Your task to perform on an android device: Open the gallery Image 0: 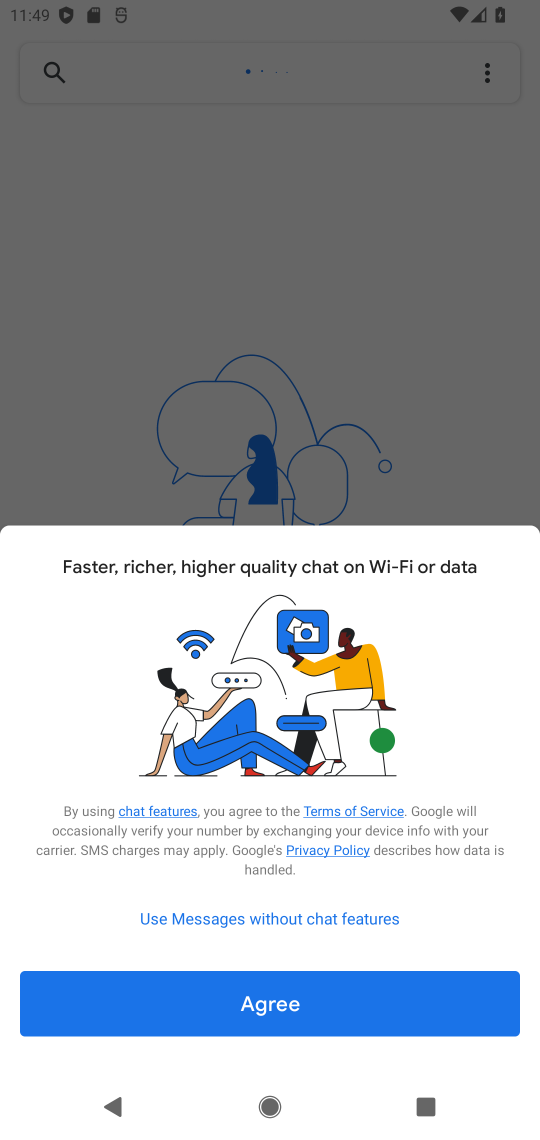
Step 0: press home button
Your task to perform on an android device: Open the gallery Image 1: 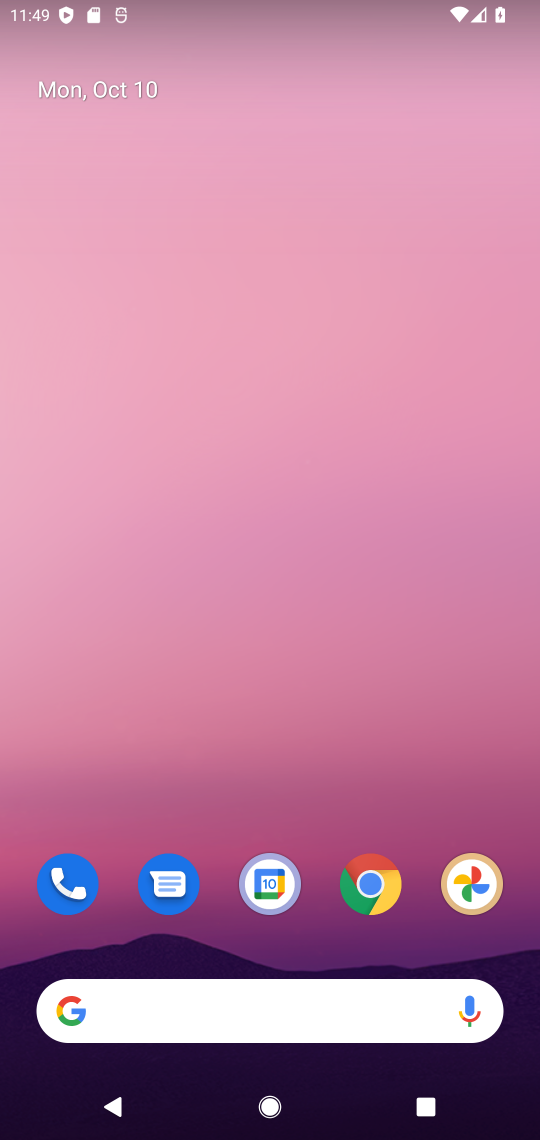
Step 1: click (377, 890)
Your task to perform on an android device: Open the gallery Image 2: 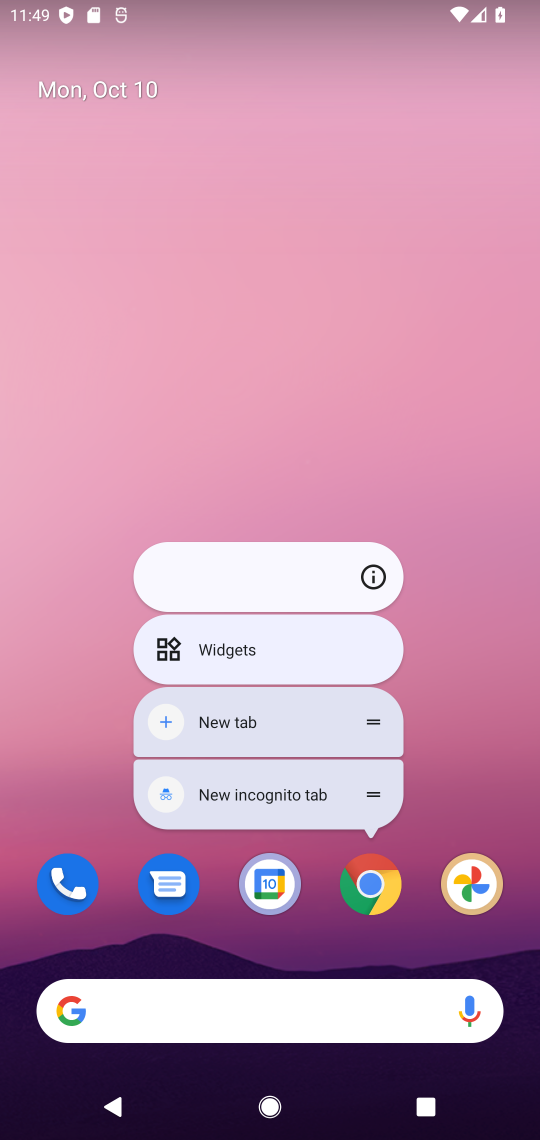
Step 2: click (443, 717)
Your task to perform on an android device: Open the gallery Image 3: 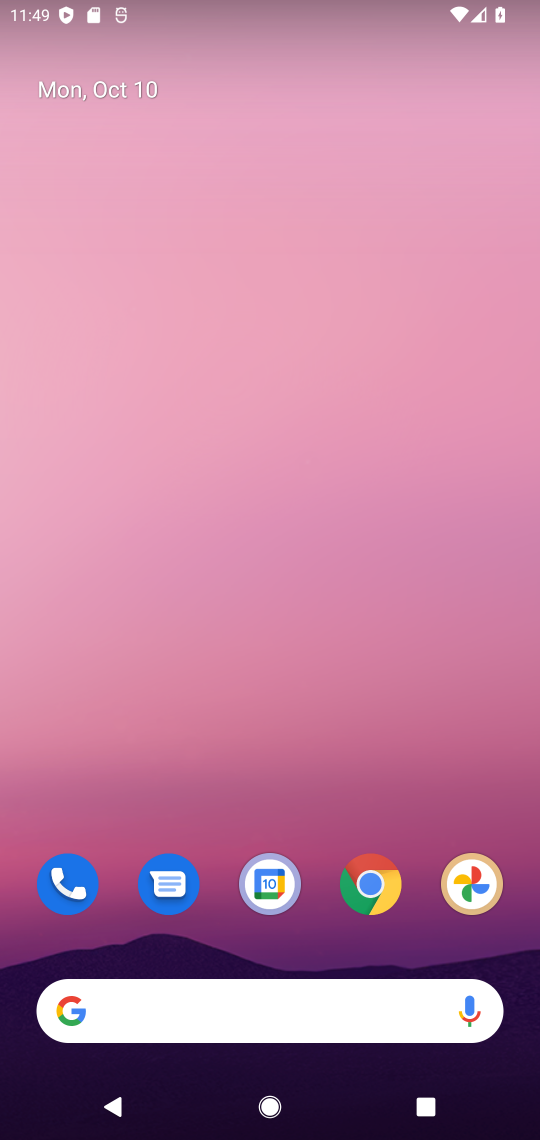
Step 3: drag from (376, 1049) to (382, 415)
Your task to perform on an android device: Open the gallery Image 4: 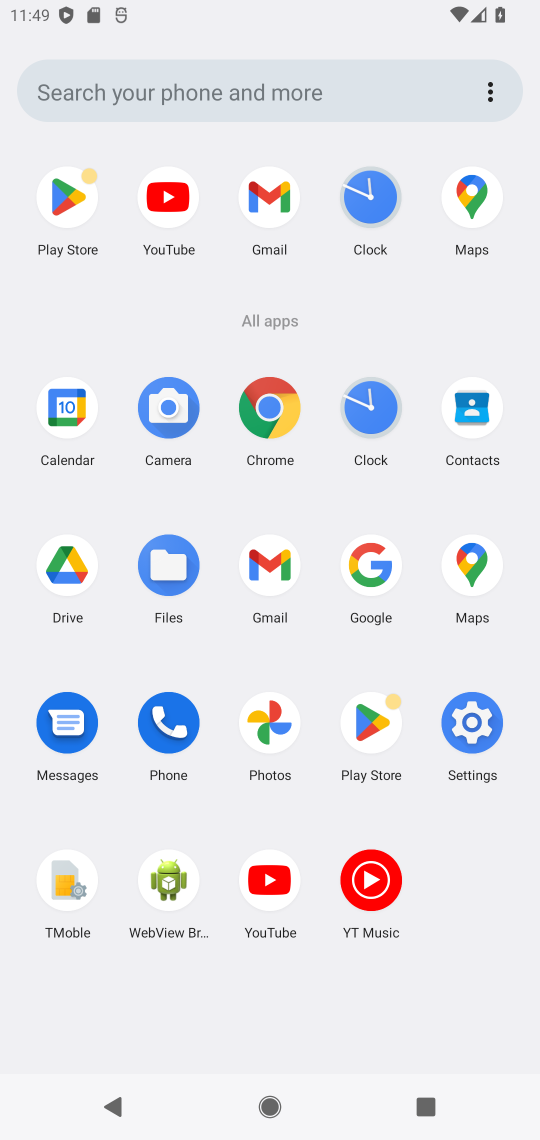
Step 4: drag from (302, 777) to (309, 454)
Your task to perform on an android device: Open the gallery Image 5: 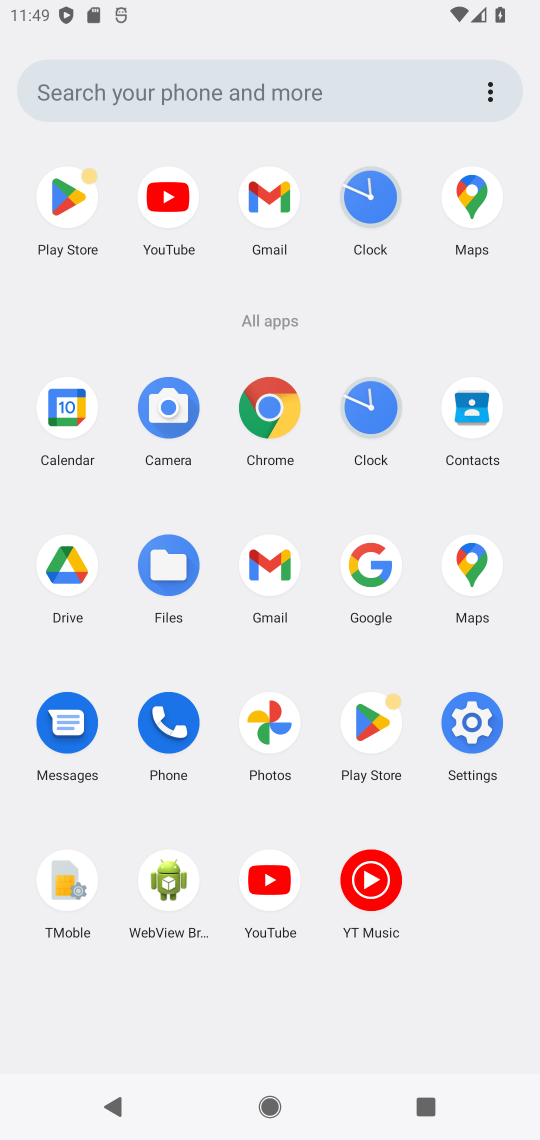
Step 5: click (182, 572)
Your task to perform on an android device: Open the gallery Image 6: 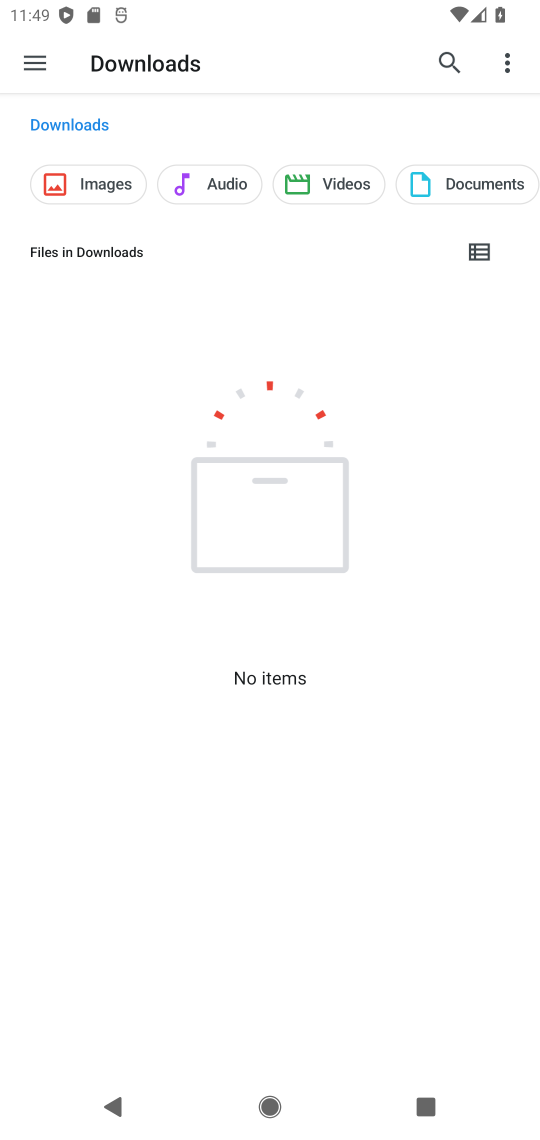
Step 6: task complete